Your task to perform on an android device: Clear the shopping cart on bestbuy. Add "apple airpods pro" to the cart on bestbuy Image 0: 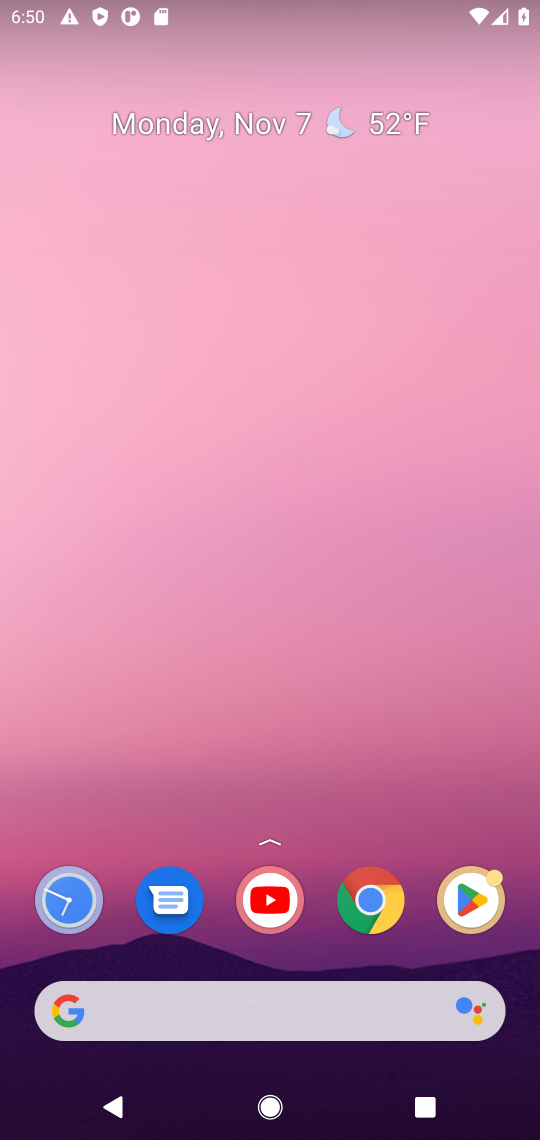
Step 0: click (368, 895)
Your task to perform on an android device: Clear the shopping cart on bestbuy. Add "apple airpods pro" to the cart on bestbuy Image 1: 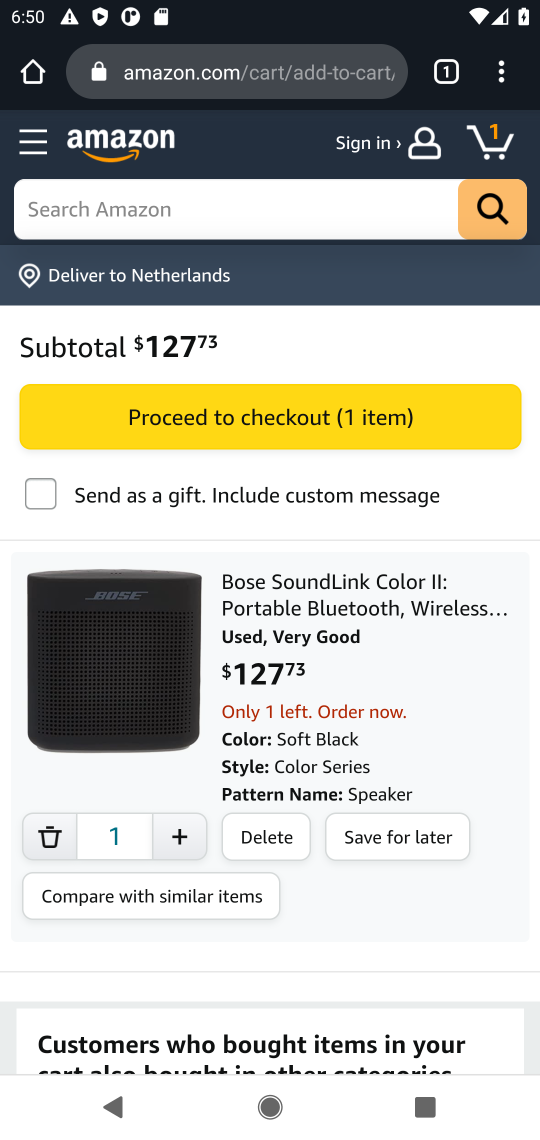
Step 1: click (448, 80)
Your task to perform on an android device: Clear the shopping cart on bestbuy. Add "apple airpods pro" to the cart on bestbuy Image 2: 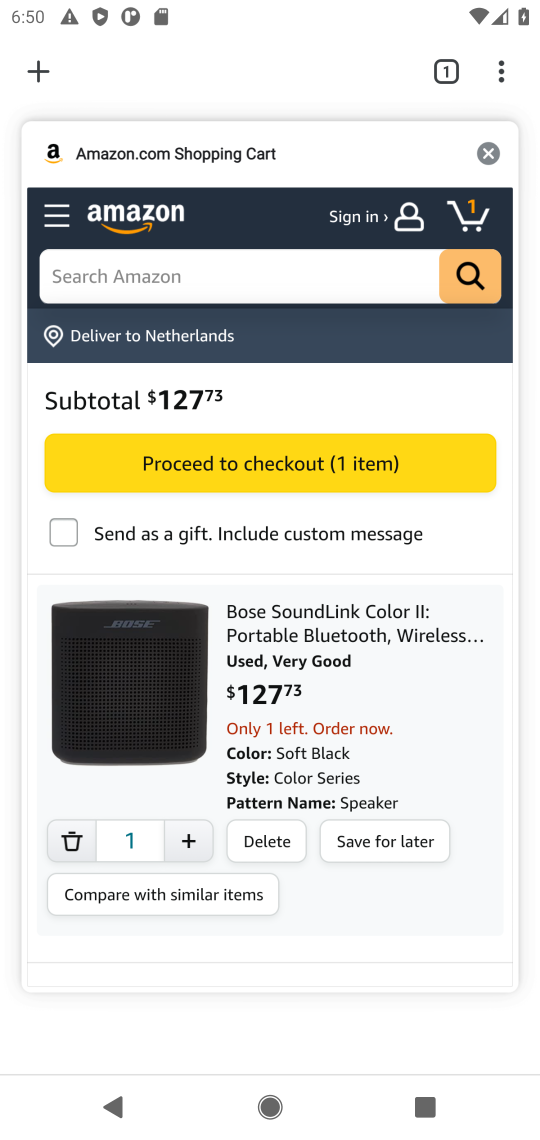
Step 2: click (26, 69)
Your task to perform on an android device: Clear the shopping cart on bestbuy. Add "apple airpods pro" to the cart on bestbuy Image 3: 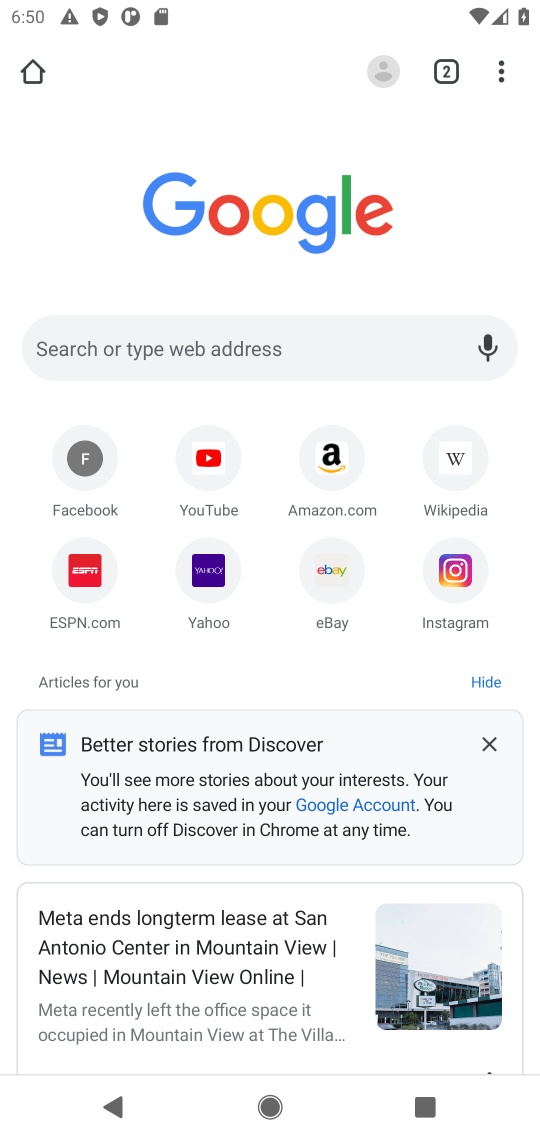
Step 3: click (151, 333)
Your task to perform on an android device: Clear the shopping cart on bestbuy. Add "apple airpods pro" to the cart on bestbuy Image 4: 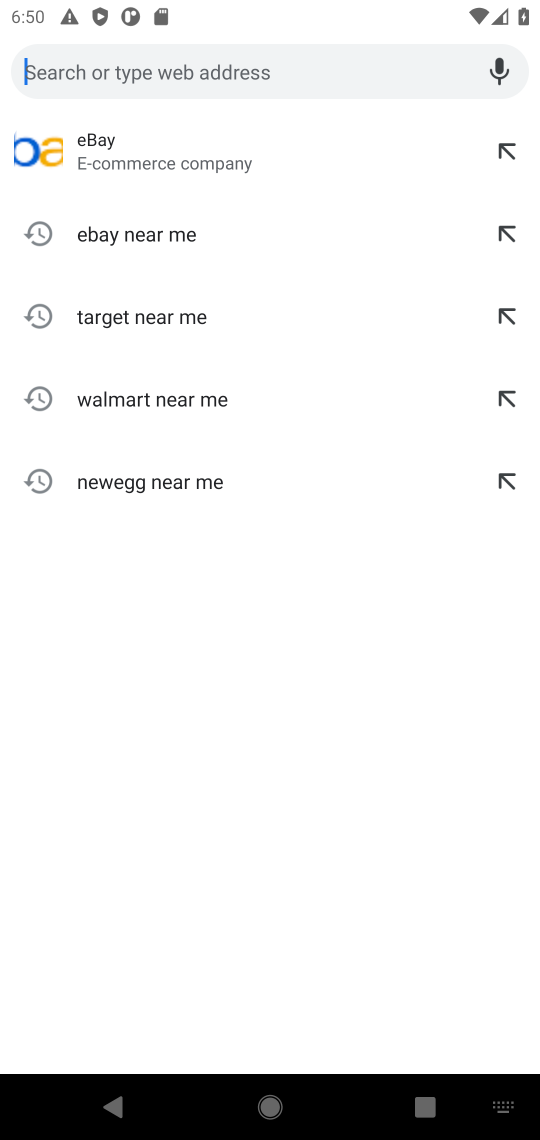
Step 4: click (111, 84)
Your task to perform on an android device: Clear the shopping cart on bestbuy. Add "apple airpods pro" to the cart on bestbuy Image 5: 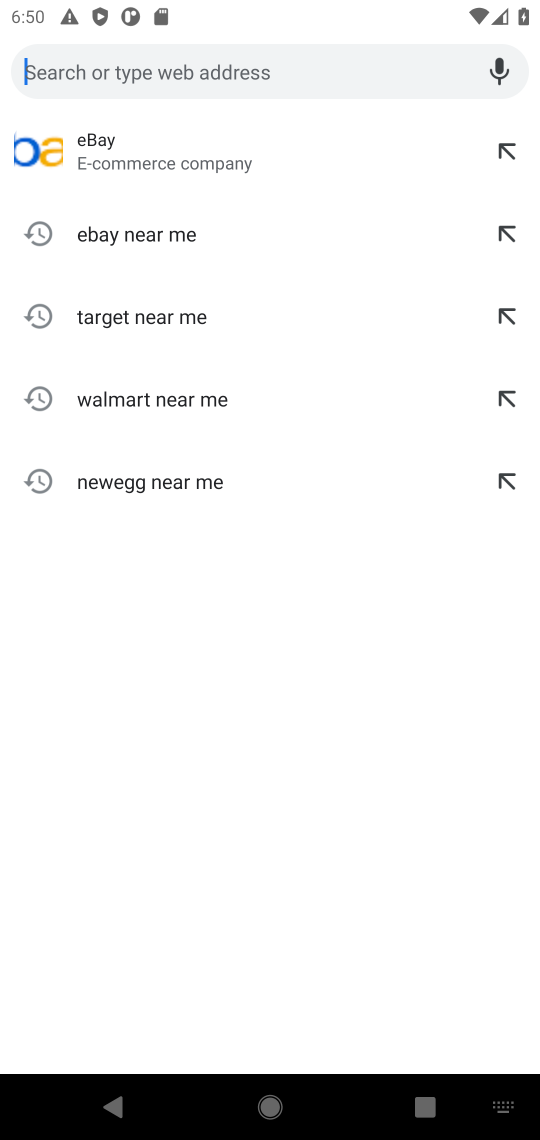
Step 5: type "bestbuy"
Your task to perform on an android device: Clear the shopping cart on bestbuy. Add "apple airpods pro" to the cart on bestbuy Image 6: 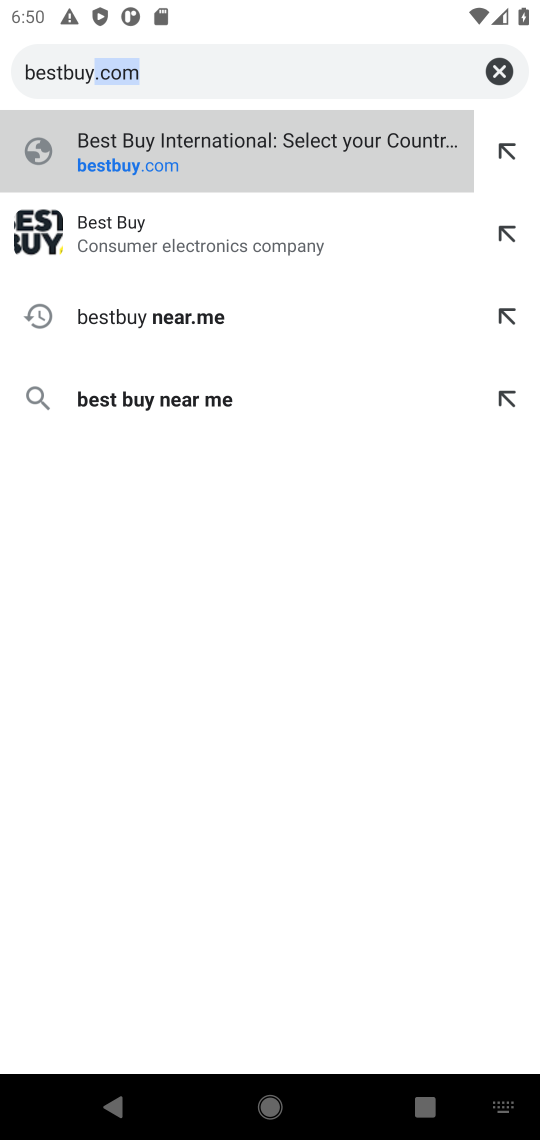
Step 6: click (279, 173)
Your task to perform on an android device: Clear the shopping cart on bestbuy. Add "apple airpods pro" to the cart on bestbuy Image 7: 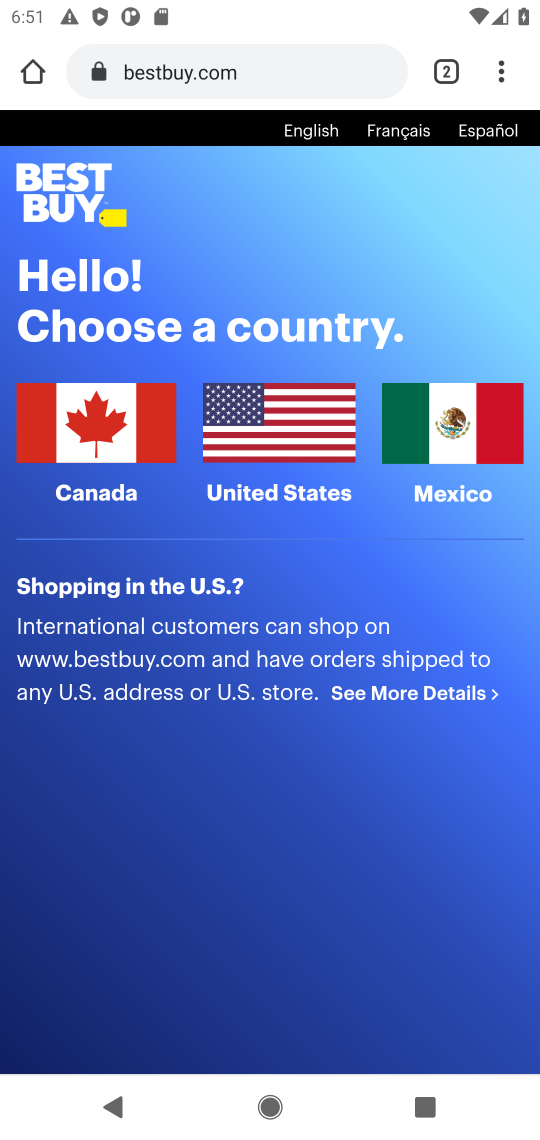
Step 7: click (325, 418)
Your task to perform on an android device: Clear the shopping cart on bestbuy. Add "apple airpods pro" to the cart on bestbuy Image 8: 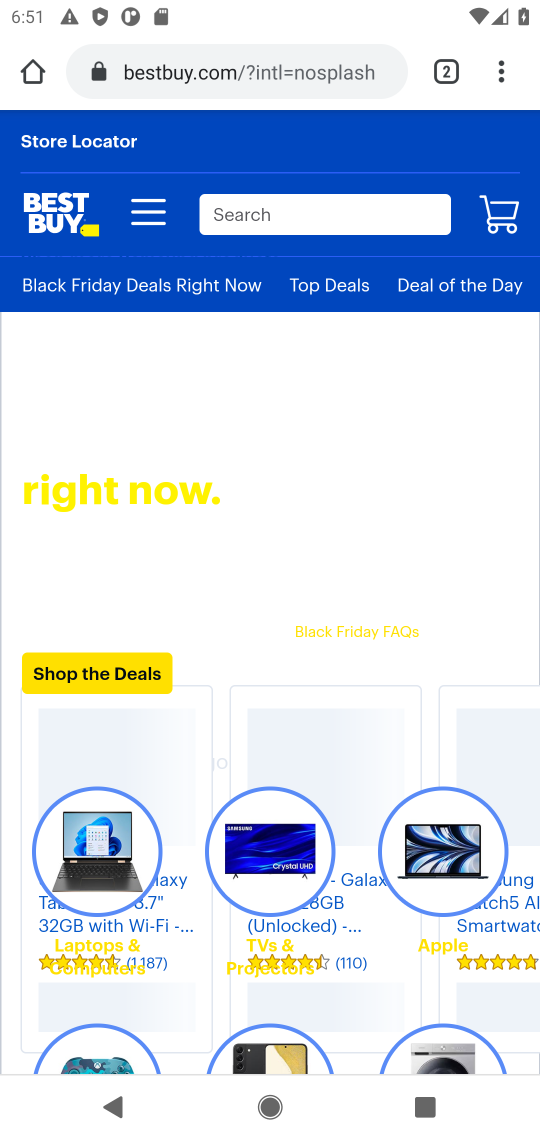
Step 8: click (266, 217)
Your task to perform on an android device: Clear the shopping cart on bestbuy. Add "apple airpods pro" to the cart on bestbuy Image 9: 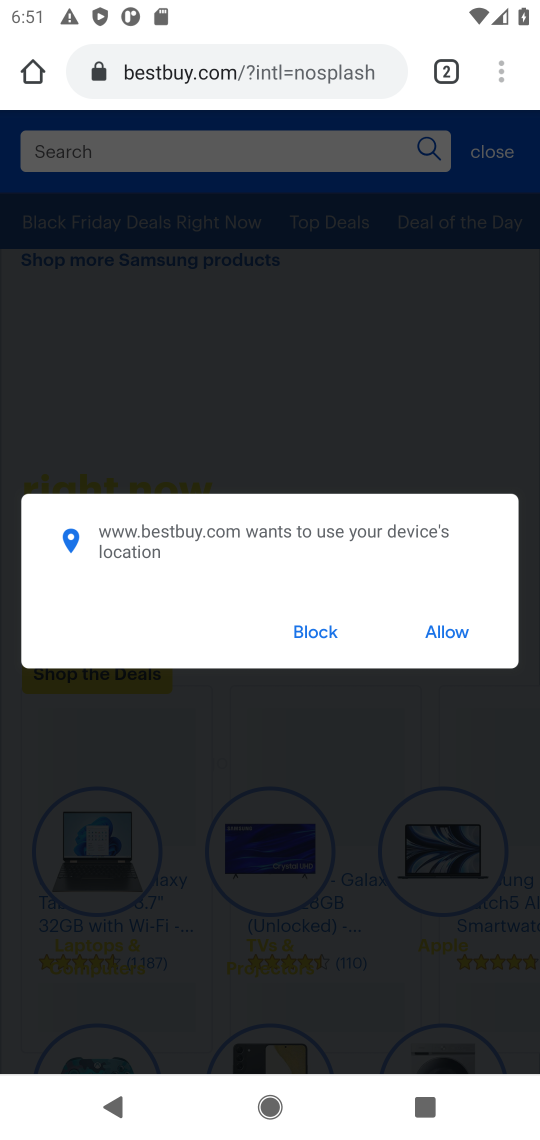
Step 9: click (321, 638)
Your task to perform on an android device: Clear the shopping cart on bestbuy. Add "apple airpods pro" to the cart on bestbuy Image 10: 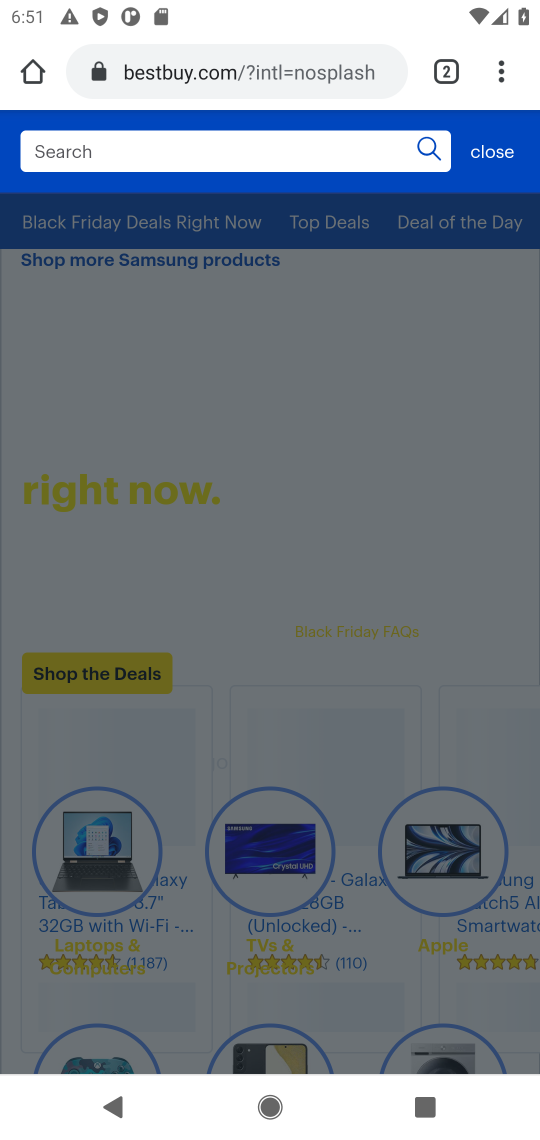
Step 10: click (217, 140)
Your task to perform on an android device: Clear the shopping cart on bestbuy. Add "apple airpods pro" to the cart on bestbuy Image 11: 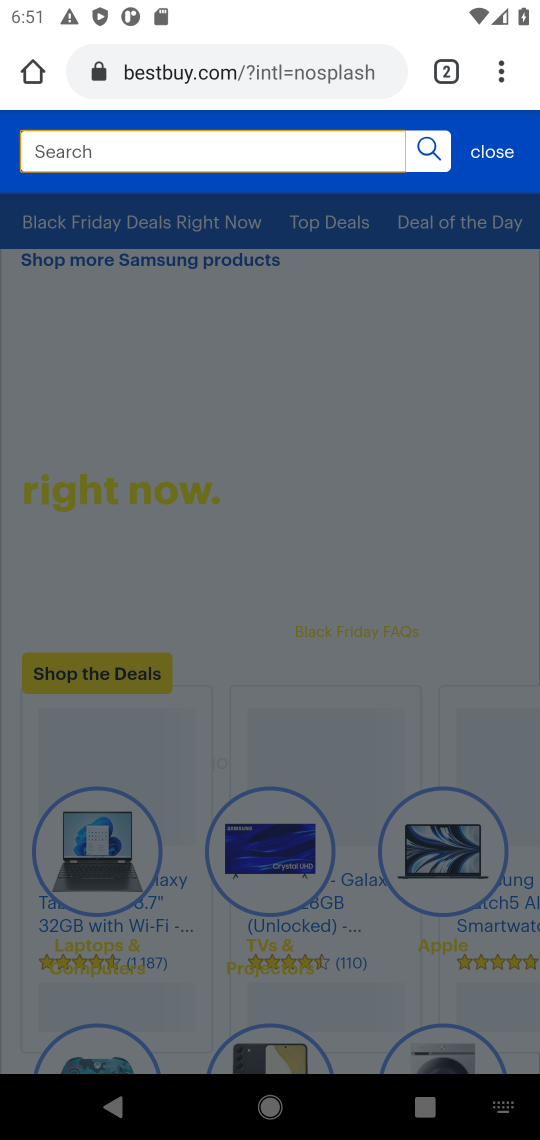
Step 11: type "apple airpods pro"
Your task to perform on an android device: Clear the shopping cart on bestbuy. Add "apple airpods pro" to the cart on bestbuy Image 12: 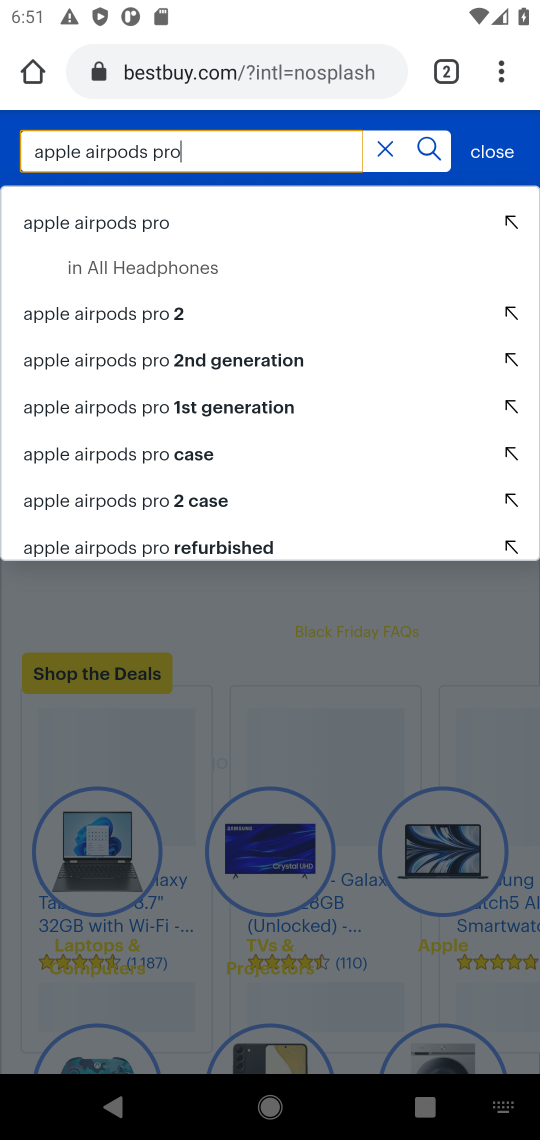
Step 12: click (221, 230)
Your task to perform on an android device: Clear the shopping cart on bestbuy. Add "apple airpods pro" to the cart on bestbuy Image 13: 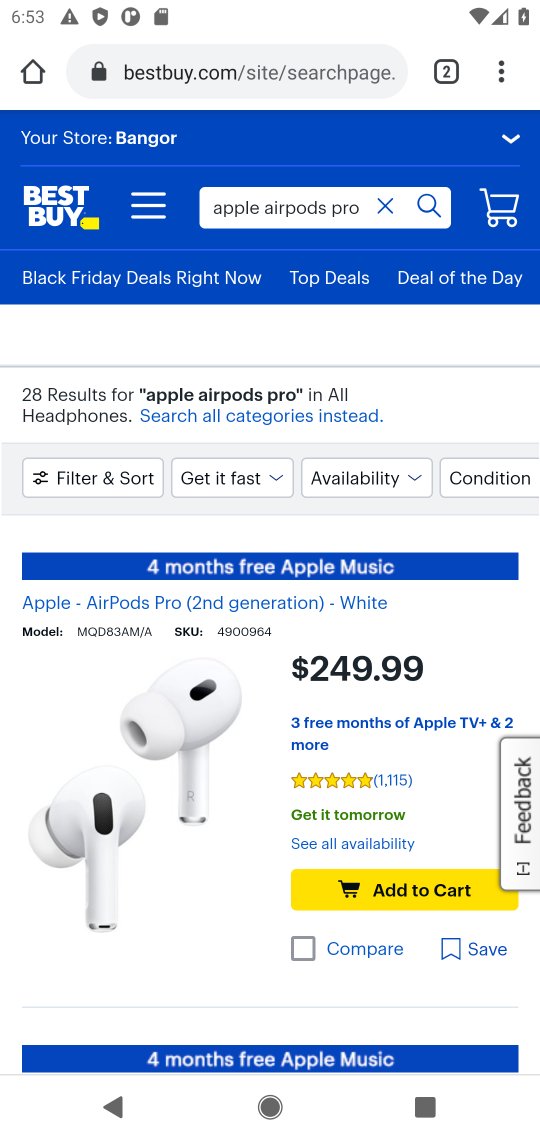
Step 13: click (373, 886)
Your task to perform on an android device: Clear the shopping cart on bestbuy. Add "apple airpods pro" to the cart on bestbuy Image 14: 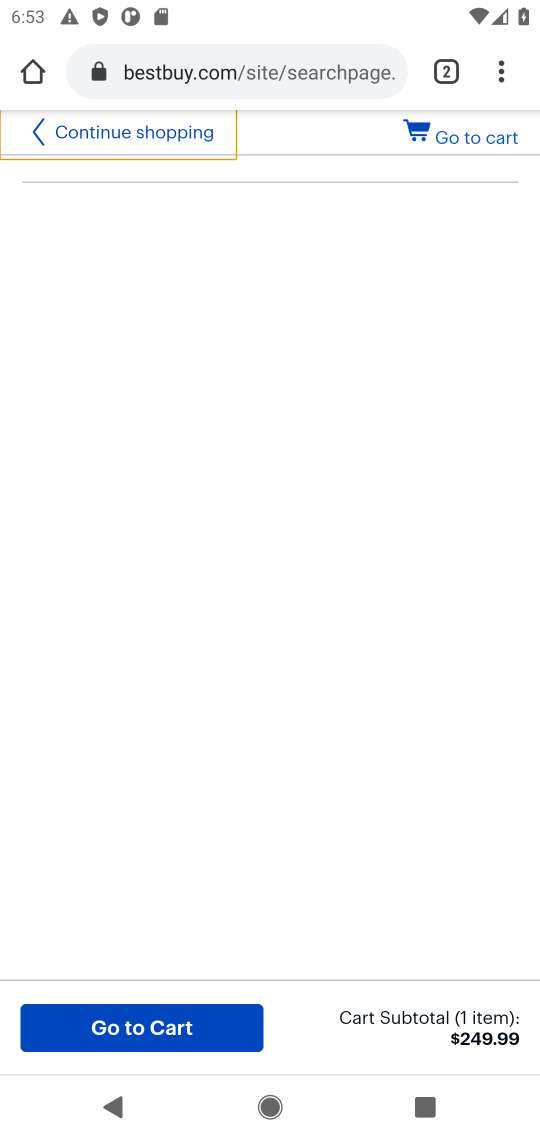
Step 14: task complete